Your task to perform on an android device: Find coffee shops on Maps Image 0: 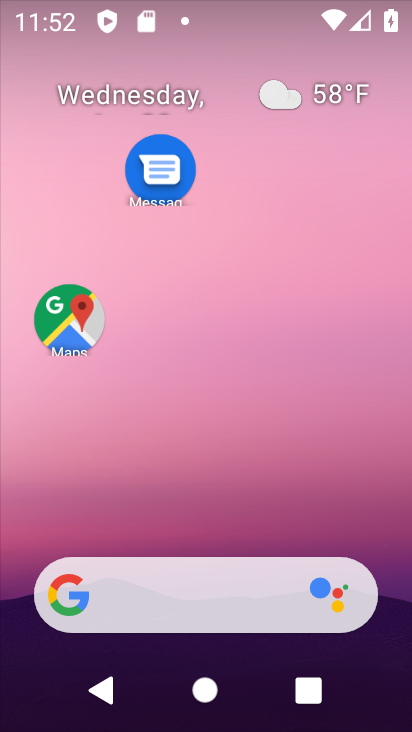
Step 0: click (132, 719)
Your task to perform on an android device: Find coffee shops on Maps Image 1: 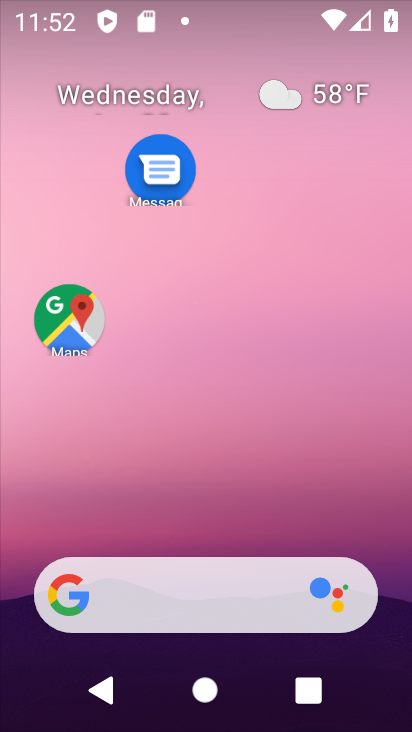
Step 1: drag from (174, 467) to (236, 133)
Your task to perform on an android device: Find coffee shops on Maps Image 2: 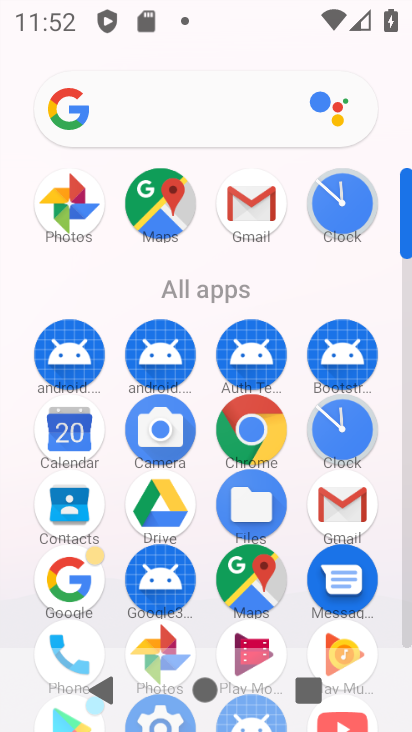
Step 2: click (163, 217)
Your task to perform on an android device: Find coffee shops on Maps Image 3: 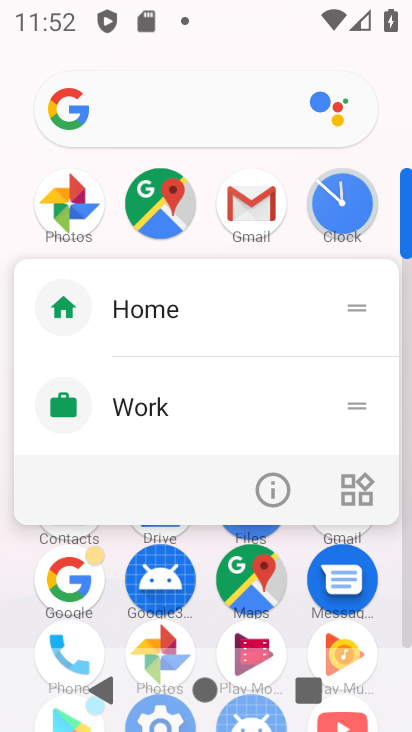
Step 3: click (278, 491)
Your task to perform on an android device: Find coffee shops on Maps Image 4: 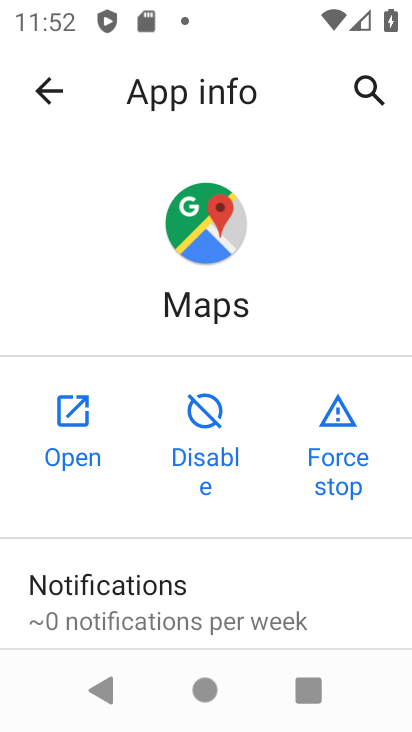
Step 4: click (37, 440)
Your task to perform on an android device: Find coffee shops on Maps Image 5: 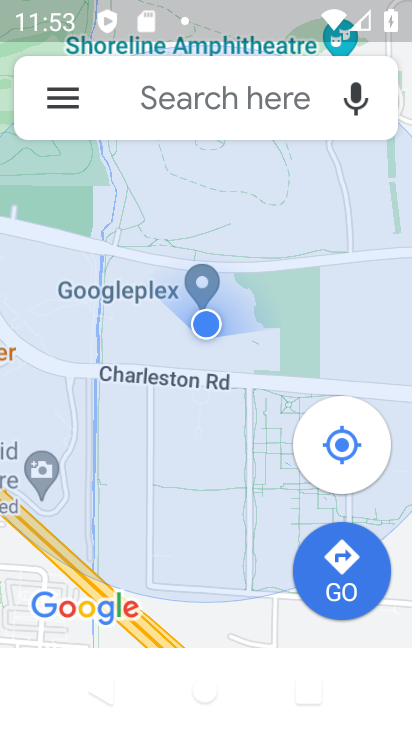
Step 5: click (160, 111)
Your task to perform on an android device: Find coffee shops on Maps Image 6: 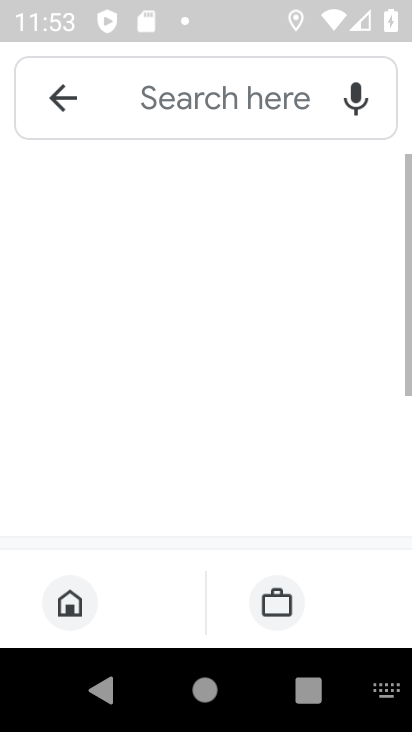
Step 6: click (215, 89)
Your task to perform on an android device: Find coffee shops on Maps Image 7: 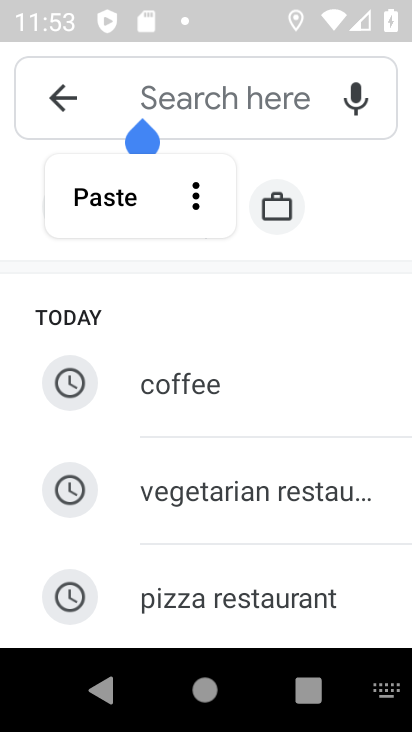
Step 7: click (193, 391)
Your task to perform on an android device: Find coffee shops on Maps Image 8: 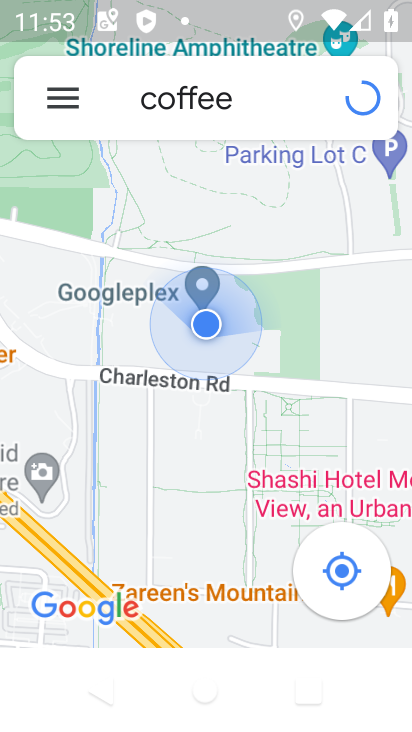
Step 8: task complete